Your task to perform on an android device: Go to Yahoo.com Image 0: 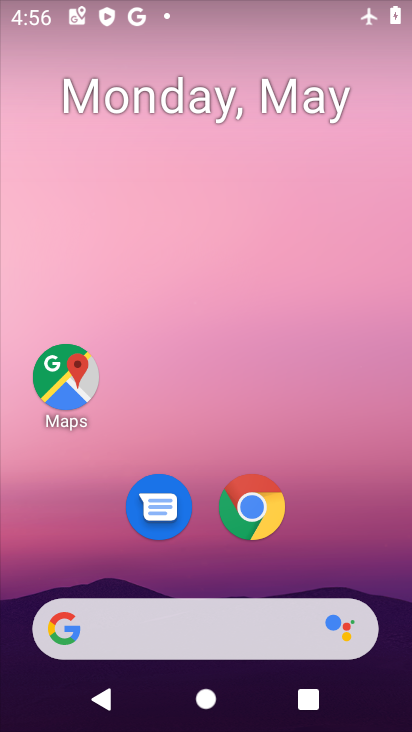
Step 0: drag from (351, 544) to (386, 77)
Your task to perform on an android device: Go to Yahoo.com Image 1: 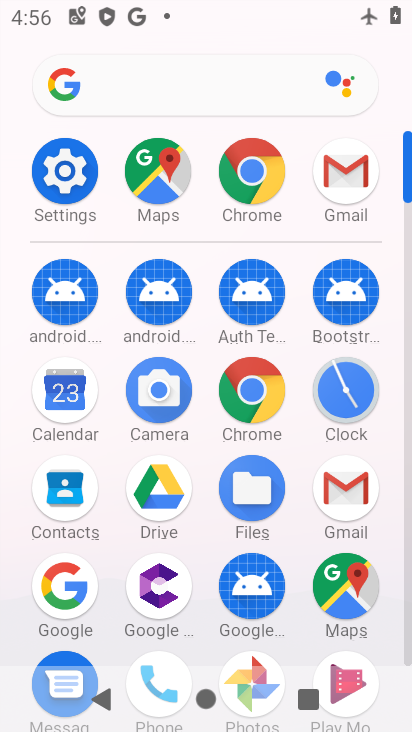
Step 1: click (255, 188)
Your task to perform on an android device: Go to Yahoo.com Image 2: 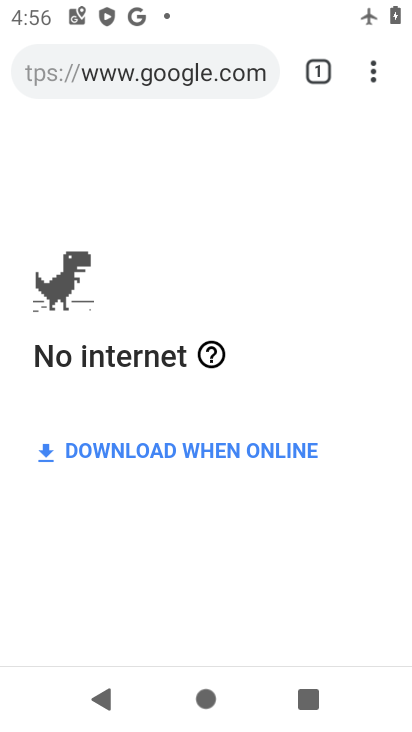
Step 2: click (210, 91)
Your task to perform on an android device: Go to Yahoo.com Image 3: 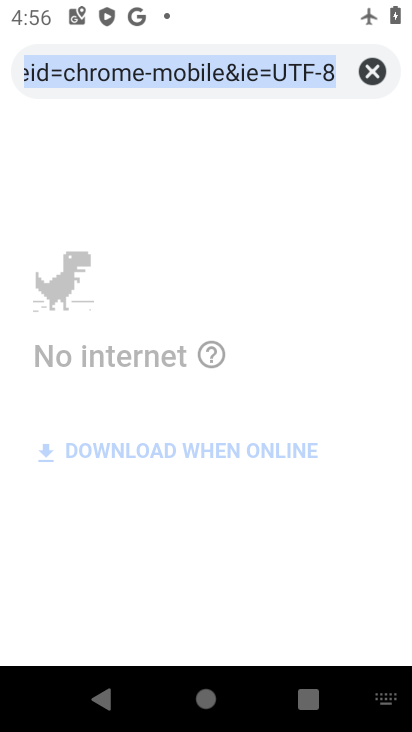
Step 3: click (383, 64)
Your task to perform on an android device: Go to Yahoo.com Image 4: 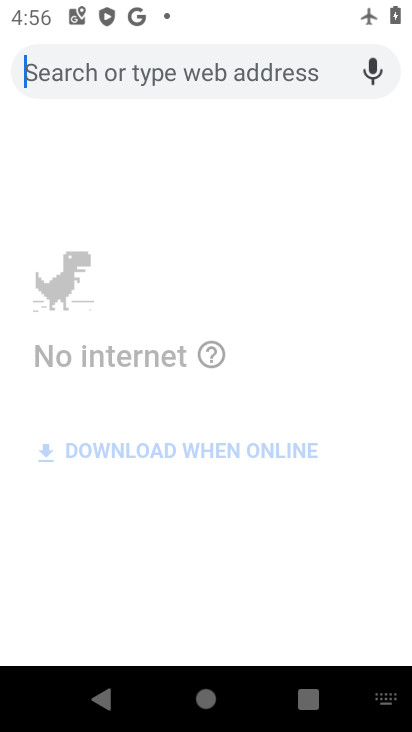
Step 4: type "yahoo"
Your task to perform on an android device: Go to Yahoo.com Image 5: 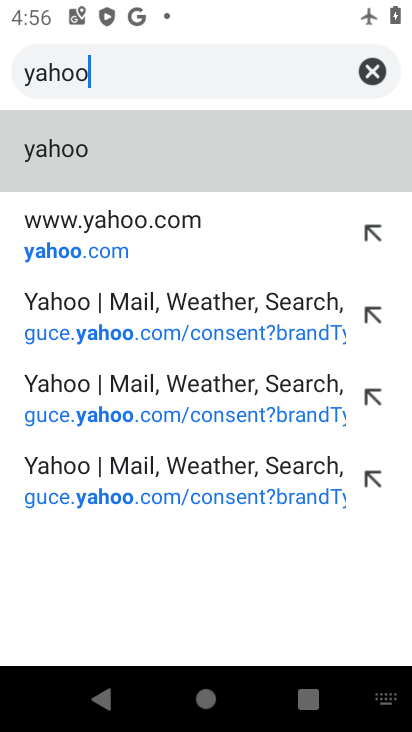
Step 5: click (93, 241)
Your task to perform on an android device: Go to Yahoo.com Image 6: 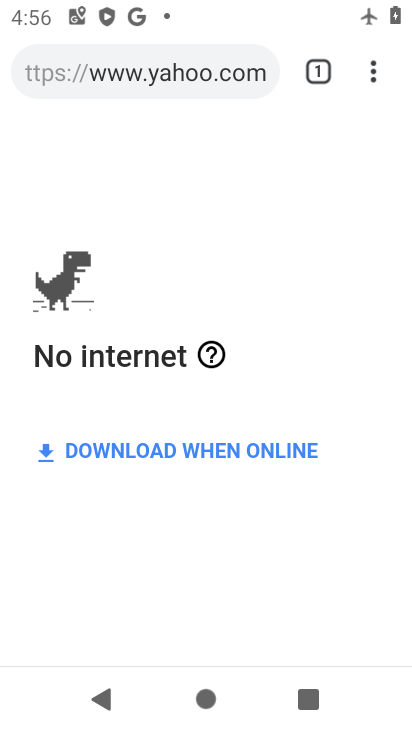
Step 6: task complete